Your task to perform on an android device: turn on the 12-hour format for clock Image 0: 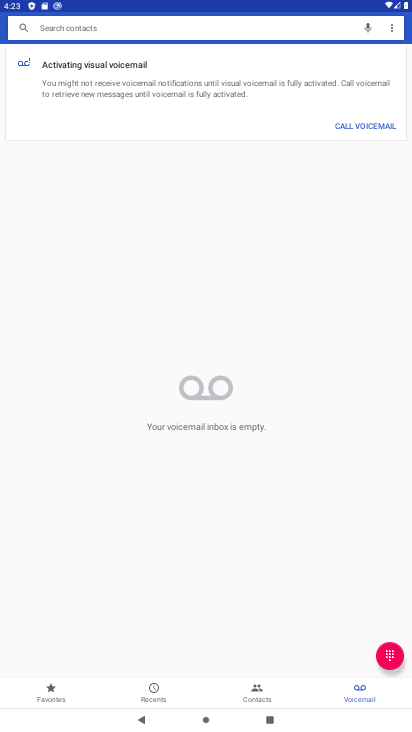
Step 0: press home button
Your task to perform on an android device: turn on the 12-hour format for clock Image 1: 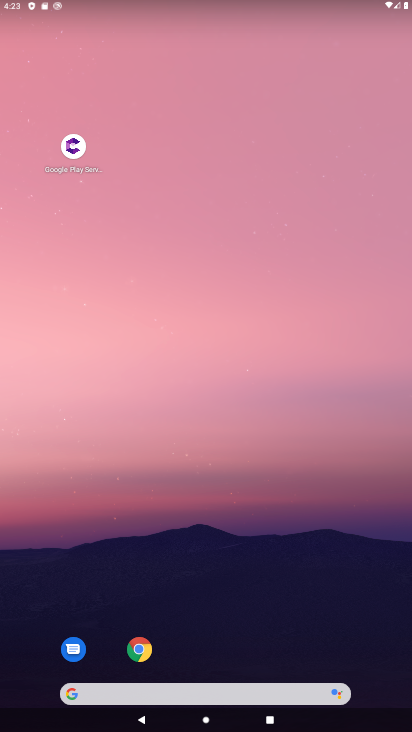
Step 1: drag from (246, 691) to (280, 197)
Your task to perform on an android device: turn on the 12-hour format for clock Image 2: 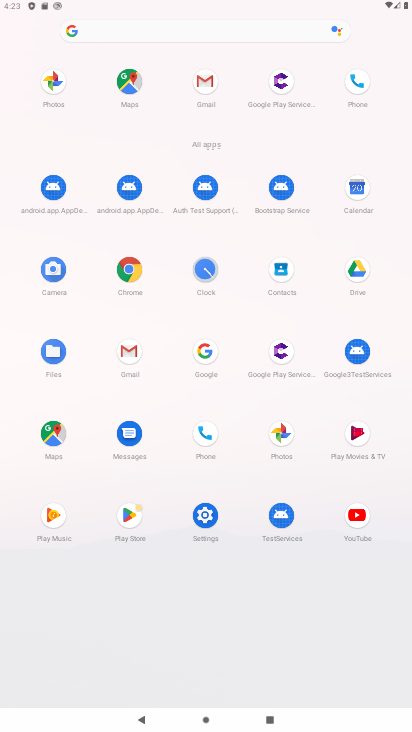
Step 2: click (196, 273)
Your task to perform on an android device: turn on the 12-hour format for clock Image 3: 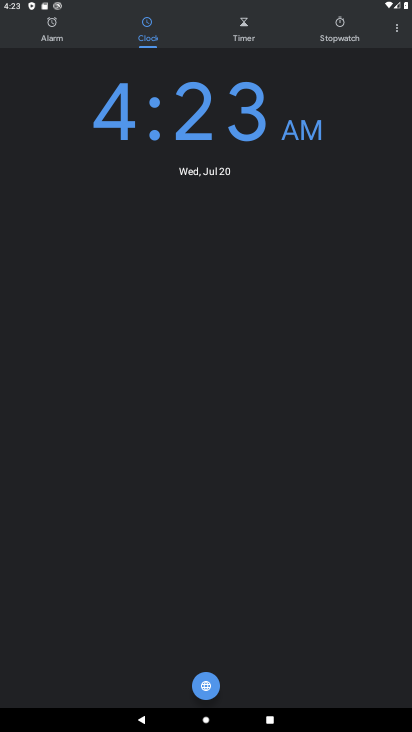
Step 3: click (392, 34)
Your task to perform on an android device: turn on the 12-hour format for clock Image 4: 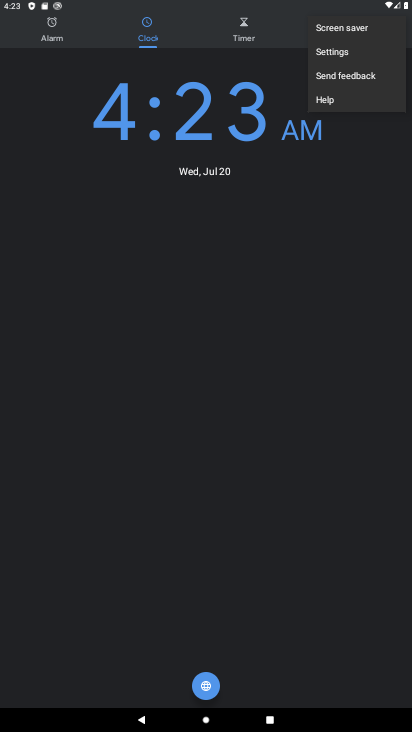
Step 4: click (331, 50)
Your task to perform on an android device: turn on the 12-hour format for clock Image 5: 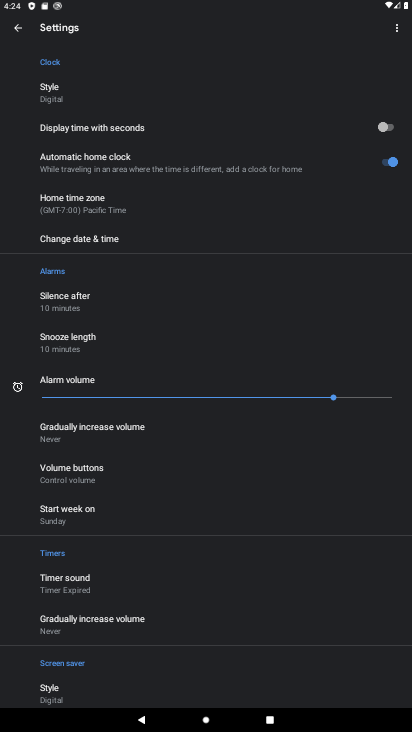
Step 5: click (63, 243)
Your task to perform on an android device: turn on the 12-hour format for clock Image 6: 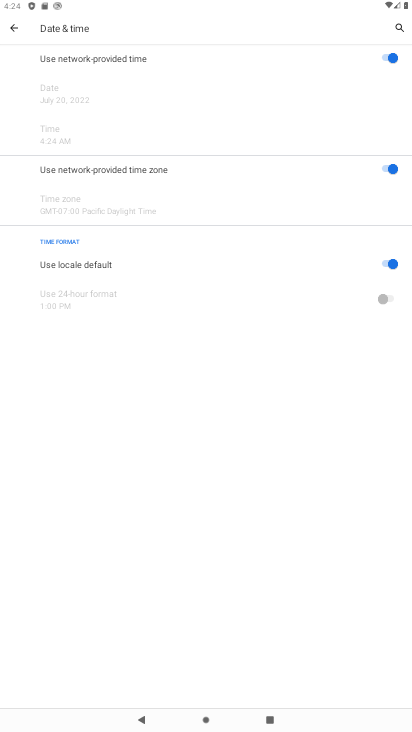
Step 6: task complete